Your task to perform on an android device: Do I have any events today? Image 0: 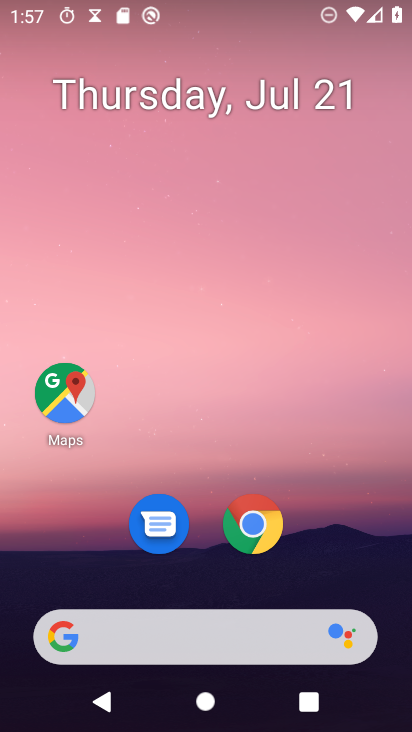
Step 0: drag from (261, 641) to (325, 41)
Your task to perform on an android device: Do I have any events today? Image 1: 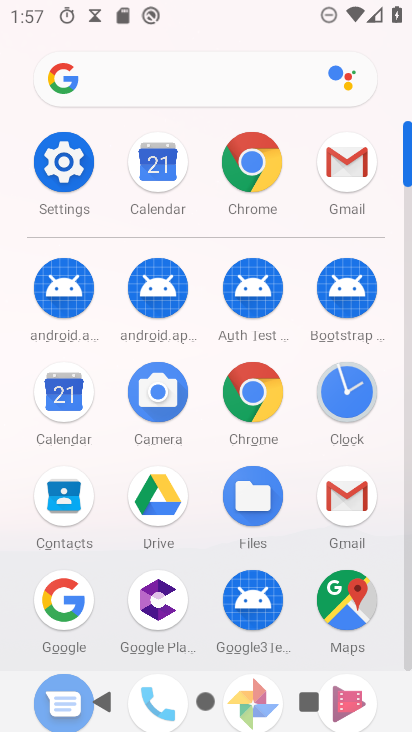
Step 1: click (62, 398)
Your task to perform on an android device: Do I have any events today? Image 2: 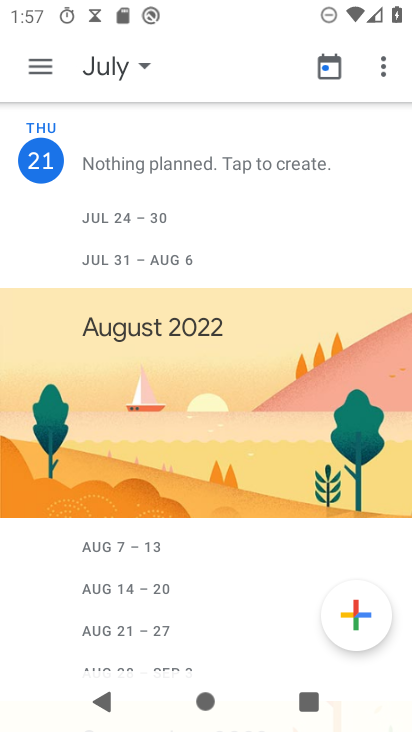
Step 2: click (121, 69)
Your task to perform on an android device: Do I have any events today? Image 3: 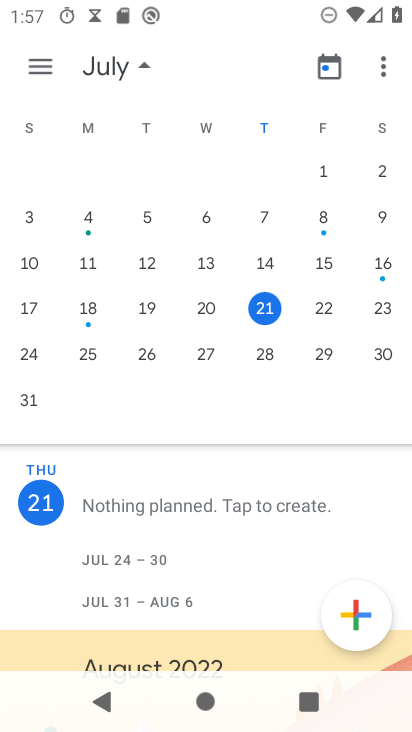
Step 3: click (266, 308)
Your task to perform on an android device: Do I have any events today? Image 4: 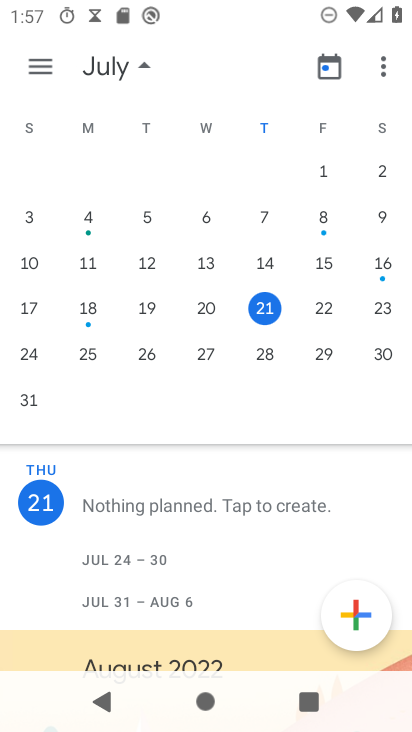
Step 4: click (47, 72)
Your task to perform on an android device: Do I have any events today? Image 5: 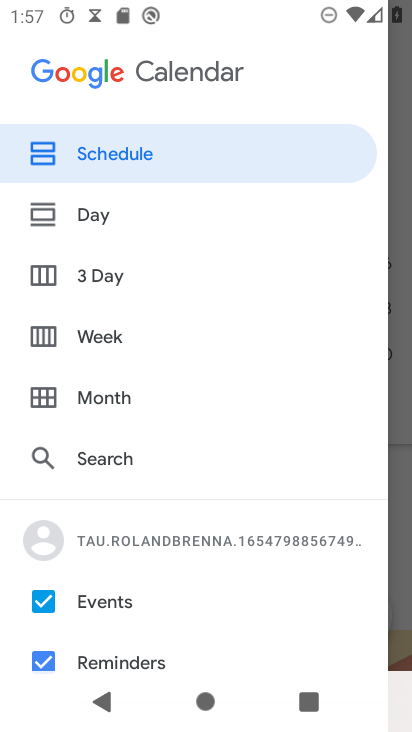
Step 5: click (140, 153)
Your task to perform on an android device: Do I have any events today? Image 6: 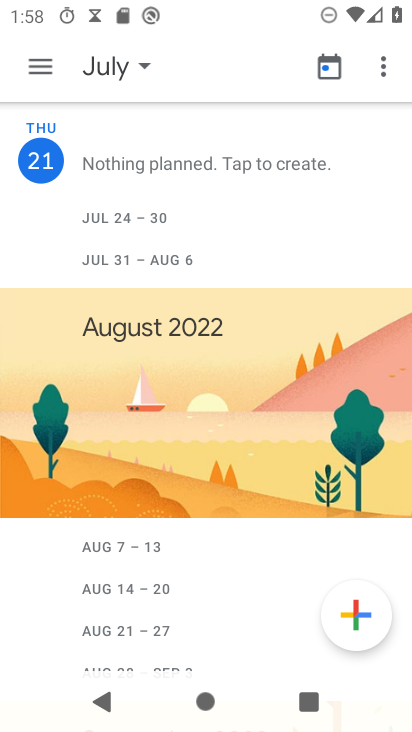
Step 6: task complete